Your task to perform on an android device: Open calendar and show me the third week of next month Image 0: 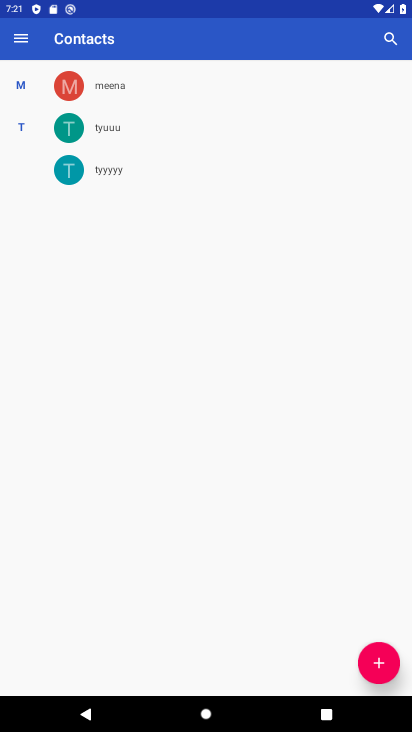
Step 0: press home button
Your task to perform on an android device: Open calendar and show me the third week of next month Image 1: 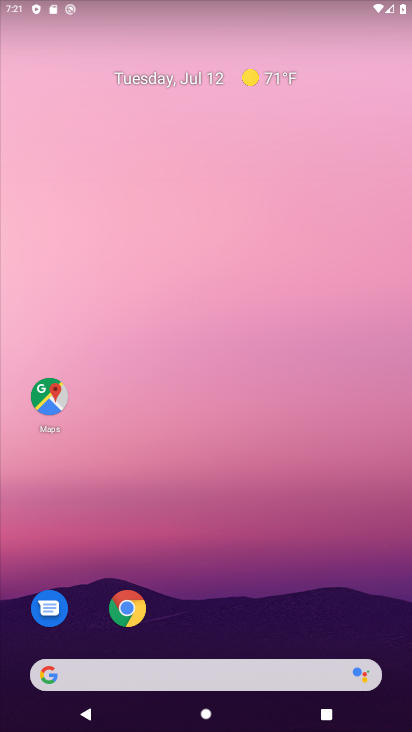
Step 1: drag from (222, 578) to (129, 104)
Your task to perform on an android device: Open calendar and show me the third week of next month Image 2: 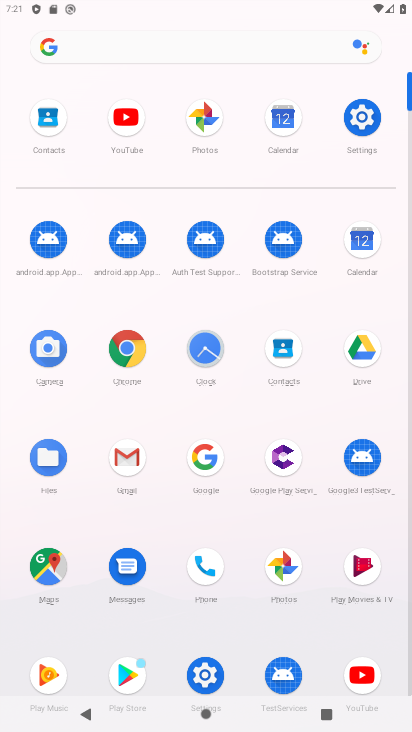
Step 2: click (350, 245)
Your task to perform on an android device: Open calendar and show me the third week of next month Image 3: 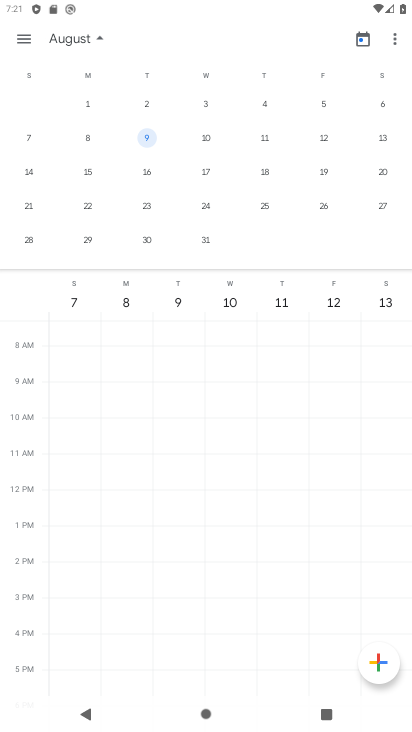
Step 3: click (89, 168)
Your task to perform on an android device: Open calendar and show me the third week of next month Image 4: 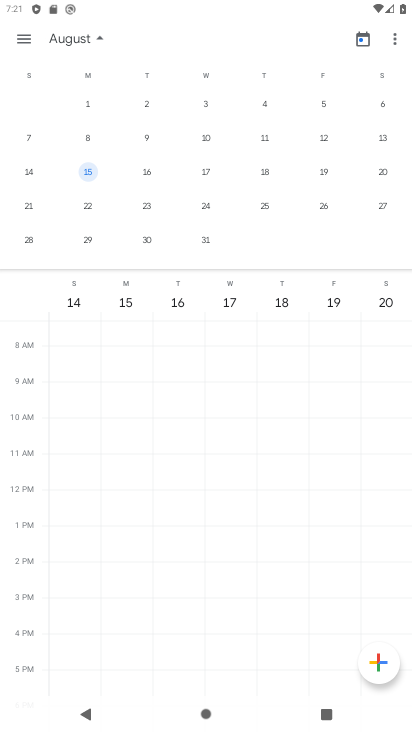
Step 4: task complete